Your task to perform on an android device: turn off improve location accuracy Image 0: 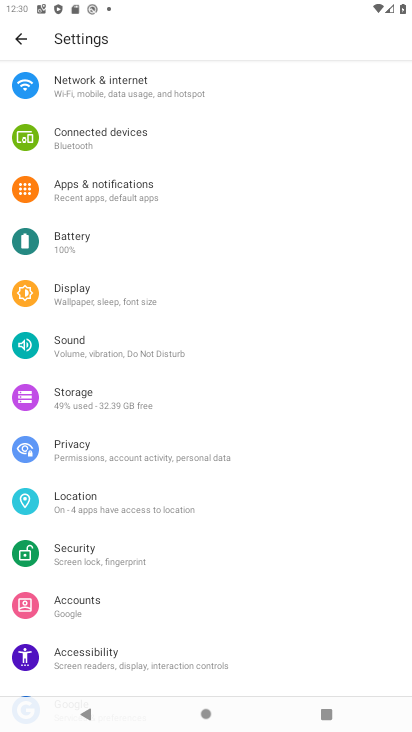
Step 0: press home button
Your task to perform on an android device: turn off improve location accuracy Image 1: 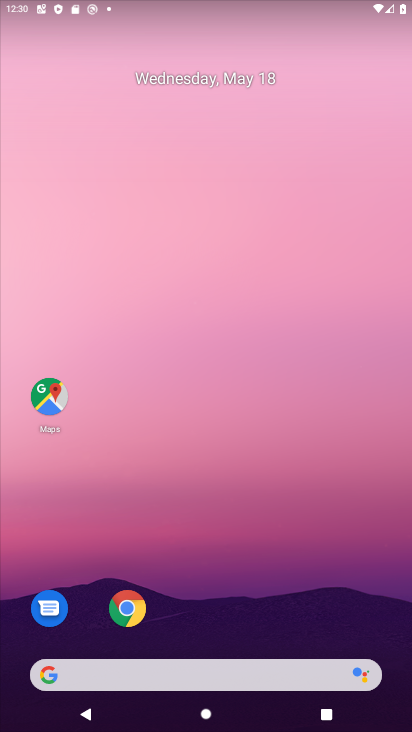
Step 1: drag from (168, 707) to (273, 119)
Your task to perform on an android device: turn off improve location accuracy Image 2: 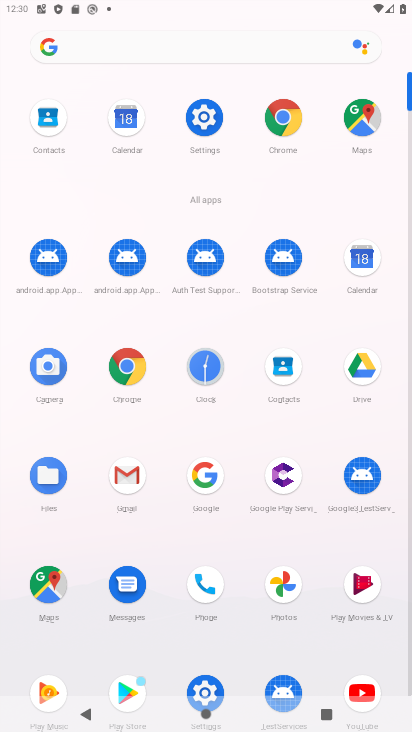
Step 2: click (203, 127)
Your task to perform on an android device: turn off improve location accuracy Image 3: 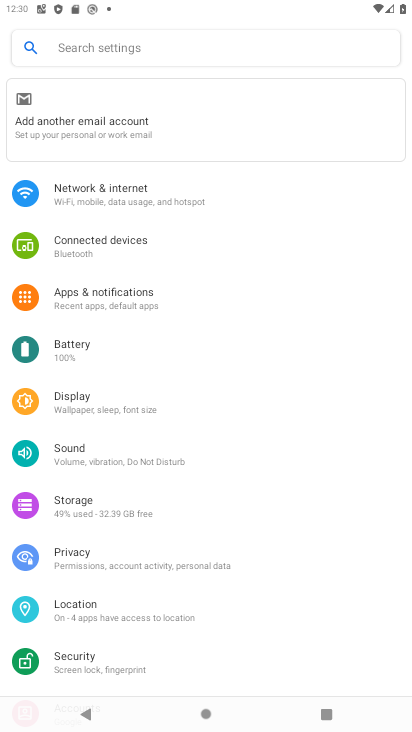
Step 3: click (135, 607)
Your task to perform on an android device: turn off improve location accuracy Image 4: 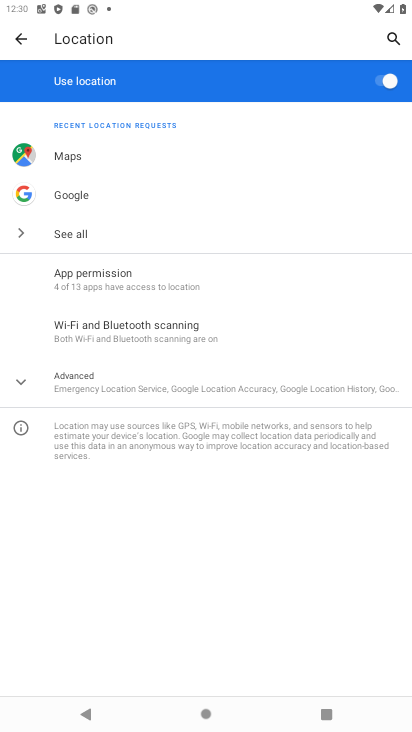
Step 4: click (175, 376)
Your task to perform on an android device: turn off improve location accuracy Image 5: 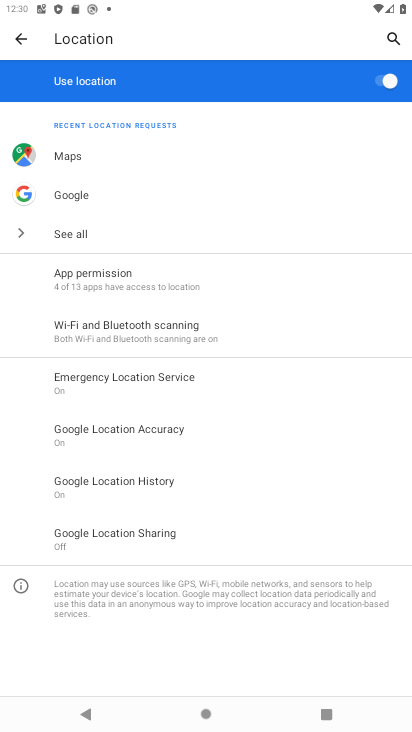
Step 5: click (201, 428)
Your task to perform on an android device: turn off improve location accuracy Image 6: 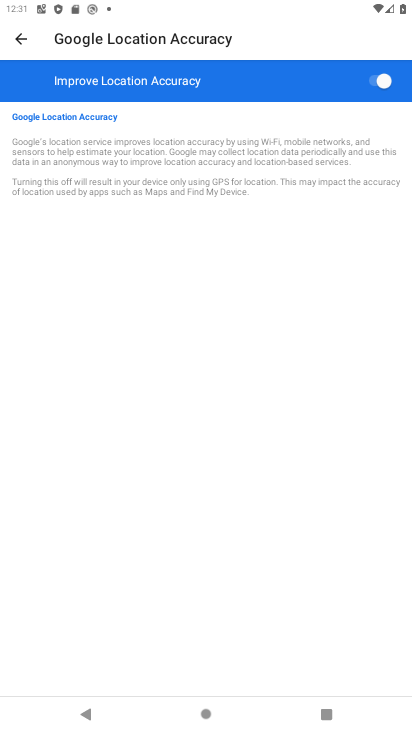
Step 6: click (380, 87)
Your task to perform on an android device: turn off improve location accuracy Image 7: 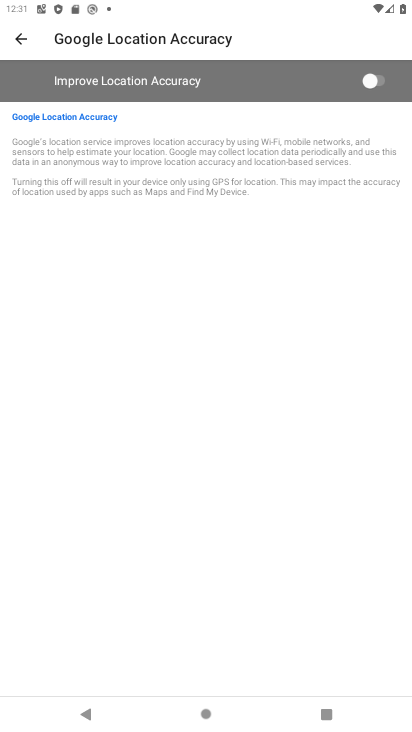
Step 7: task complete